Your task to perform on an android device: turn on location history Image 0: 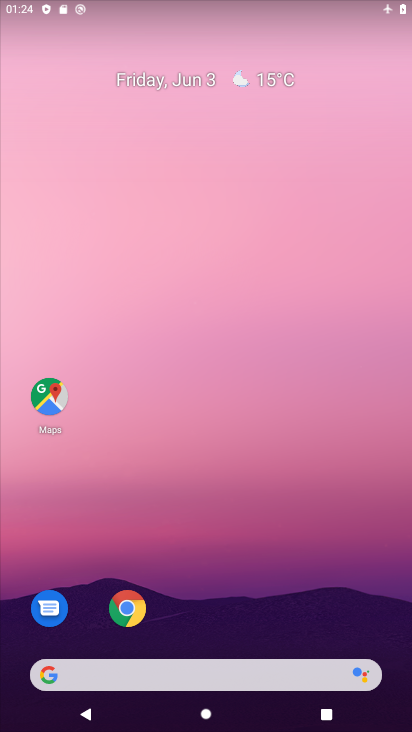
Step 0: click (372, 392)
Your task to perform on an android device: turn on location history Image 1: 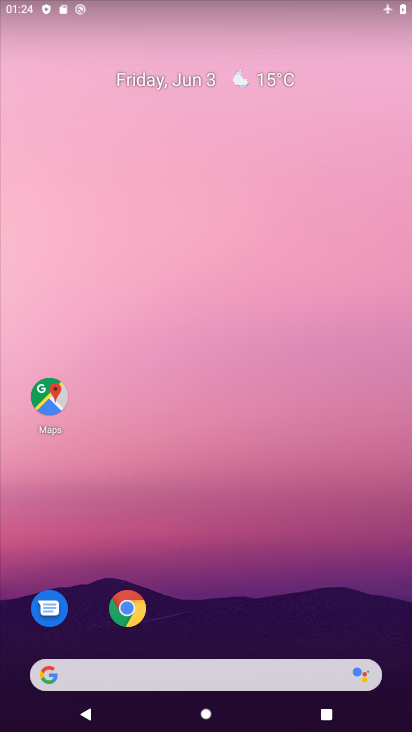
Step 1: drag from (278, 626) to (180, 110)
Your task to perform on an android device: turn on location history Image 2: 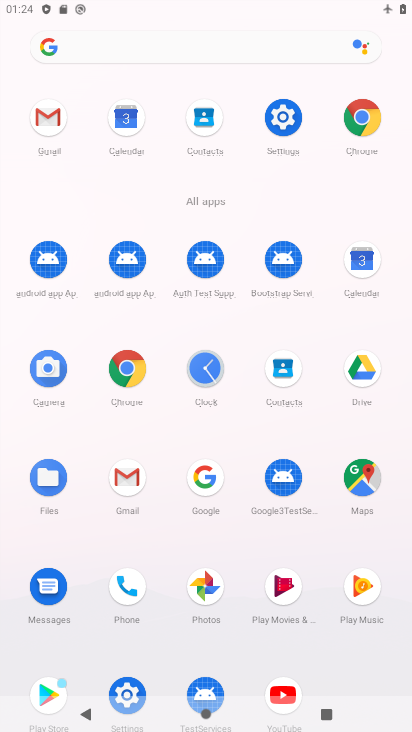
Step 2: click (294, 114)
Your task to perform on an android device: turn on location history Image 3: 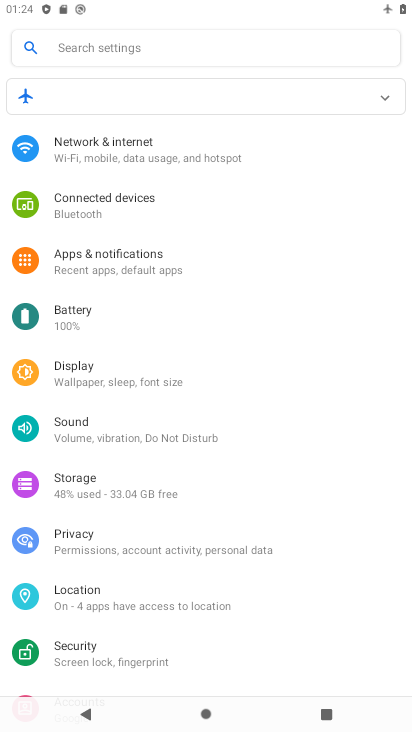
Step 3: click (103, 587)
Your task to perform on an android device: turn on location history Image 4: 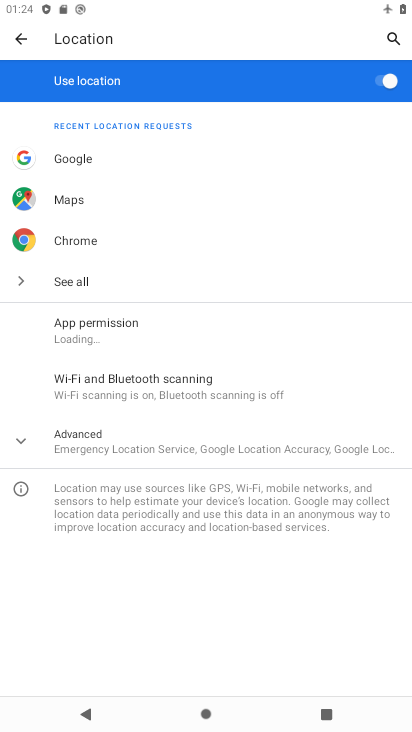
Step 4: click (113, 444)
Your task to perform on an android device: turn on location history Image 5: 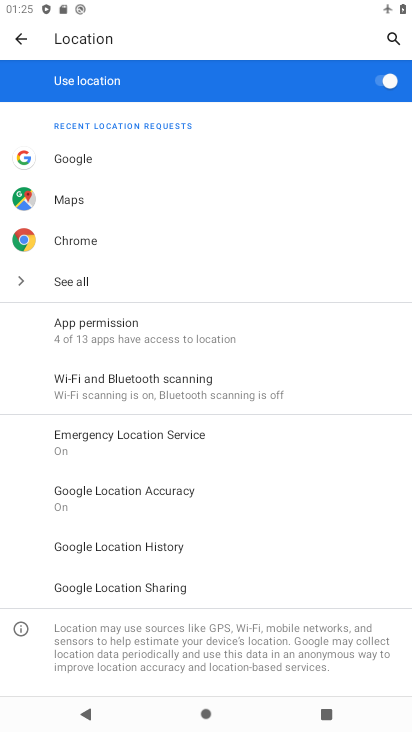
Step 5: click (159, 545)
Your task to perform on an android device: turn on location history Image 6: 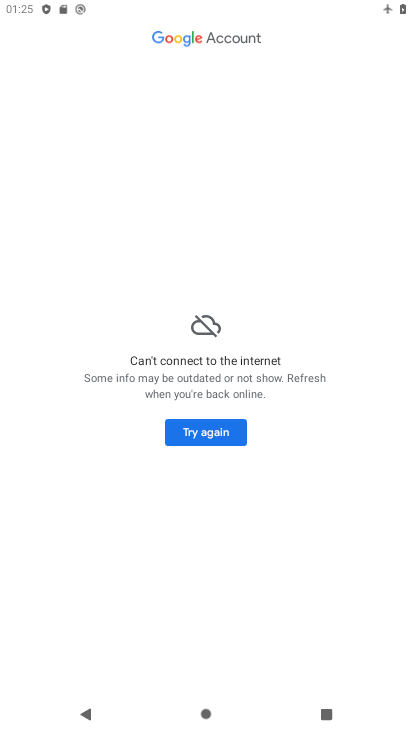
Step 6: task complete